Your task to perform on an android device: Check the news Image 0: 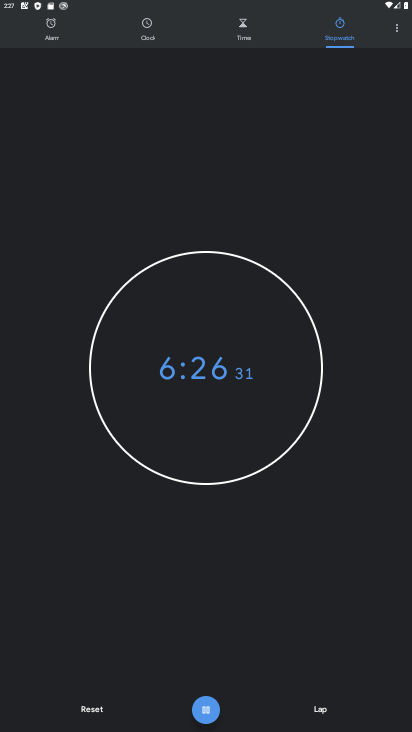
Step 0: press home button
Your task to perform on an android device: Check the news Image 1: 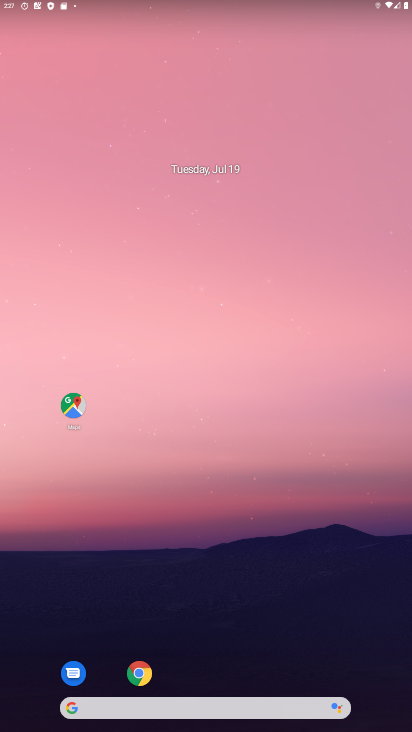
Step 1: click (206, 706)
Your task to perform on an android device: Check the news Image 2: 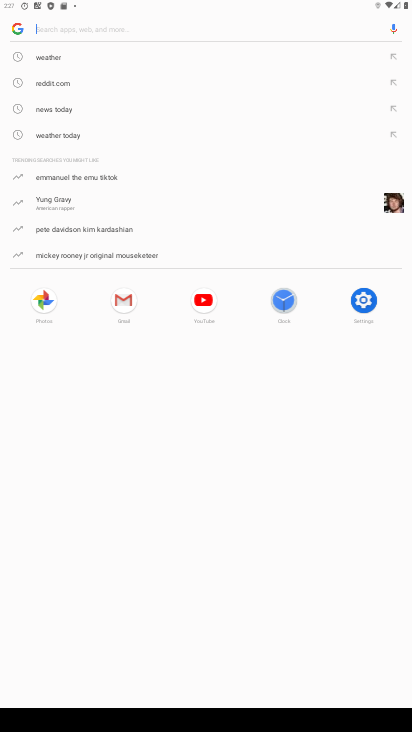
Step 2: type "news"
Your task to perform on an android device: Check the news Image 3: 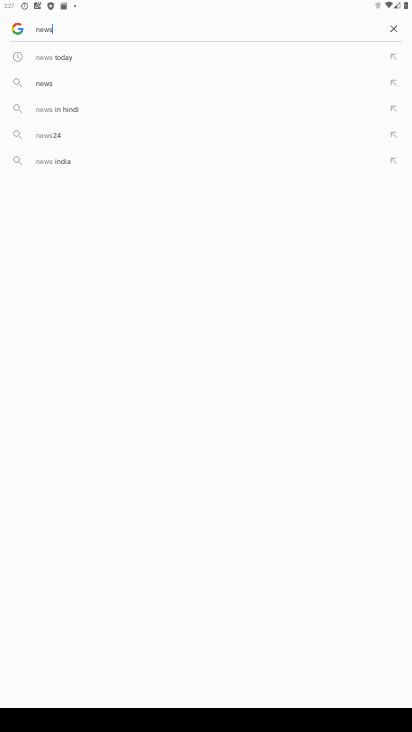
Step 3: click (54, 85)
Your task to perform on an android device: Check the news Image 4: 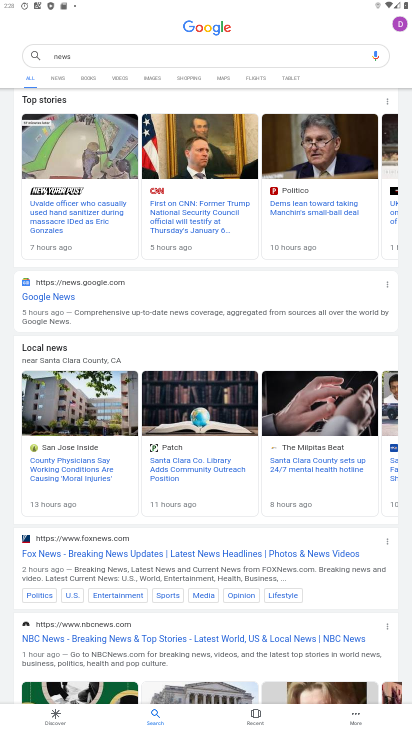
Step 4: task complete